Your task to perform on an android device: Go to Yahoo.com Image 0: 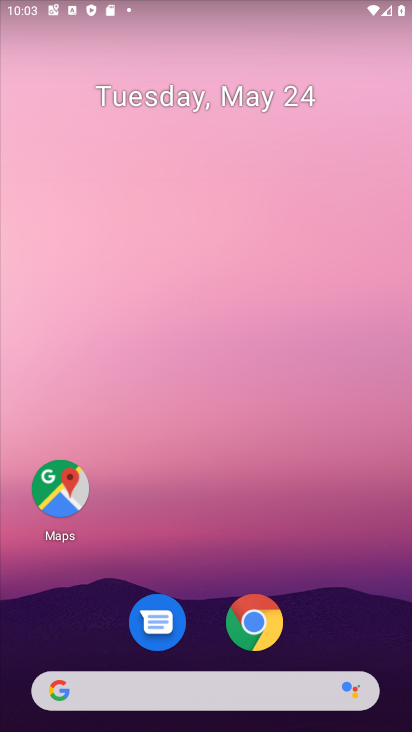
Step 0: press home button
Your task to perform on an android device: Go to Yahoo.com Image 1: 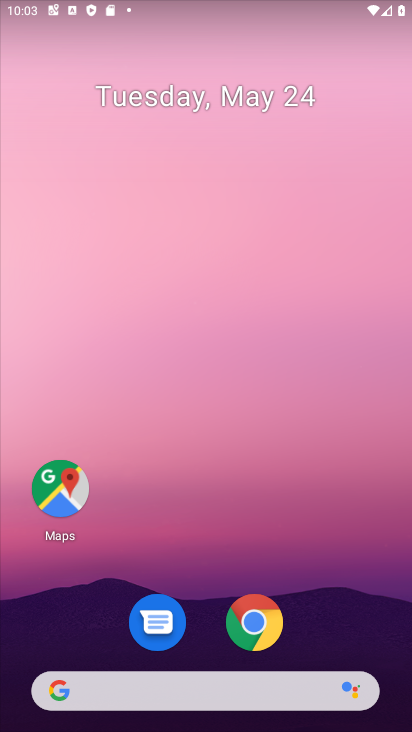
Step 1: drag from (304, 717) to (273, 124)
Your task to perform on an android device: Go to Yahoo.com Image 2: 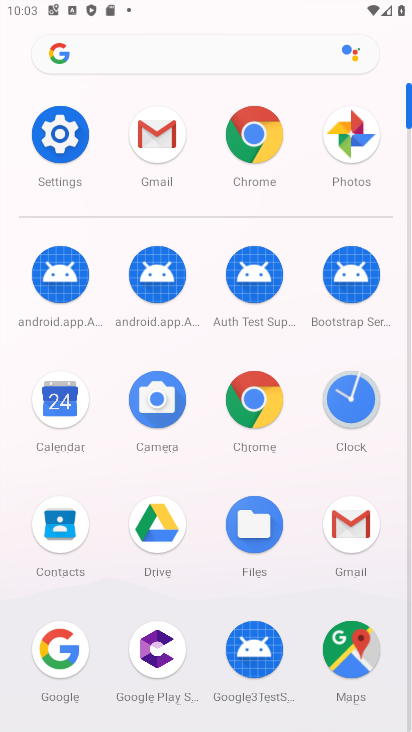
Step 2: click (242, 149)
Your task to perform on an android device: Go to Yahoo.com Image 3: 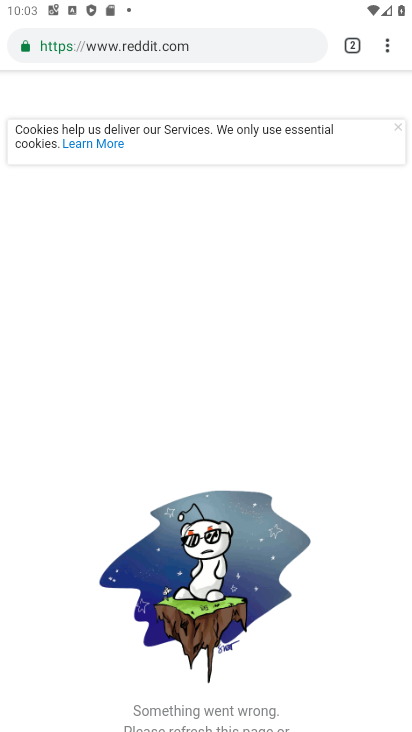
Step 3: click (356, 40)
Your task to perform on an android device: Go to Yahoo.com Image 4: 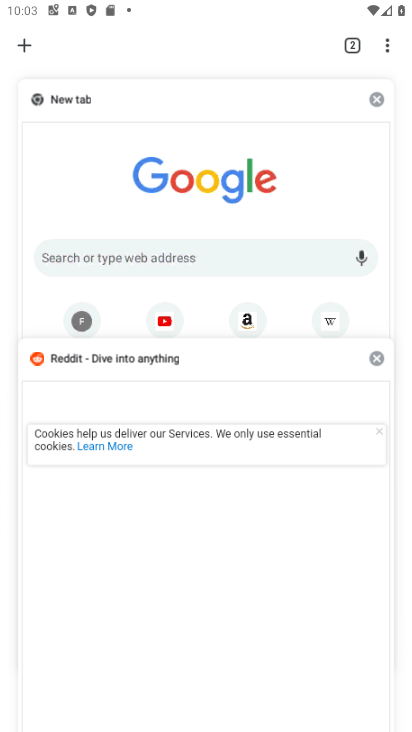
Step 4: click (20, 44)
Your task to perform on an android device: Go to Yahoo.com Image 5: 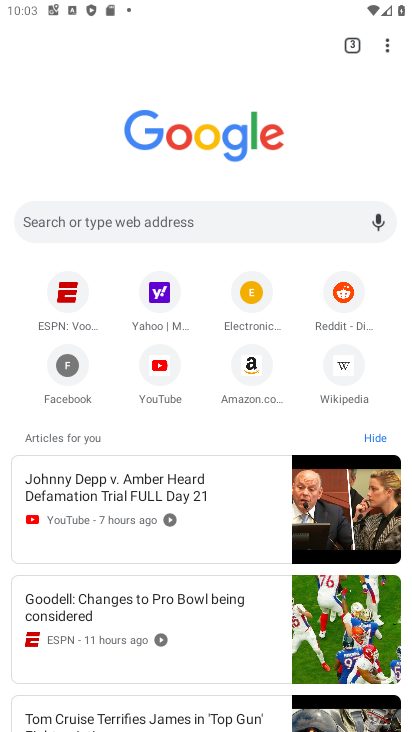
Step 5: click (160, 304)
Your task to perform on an android device: Go to Yahoo.com Image 6: 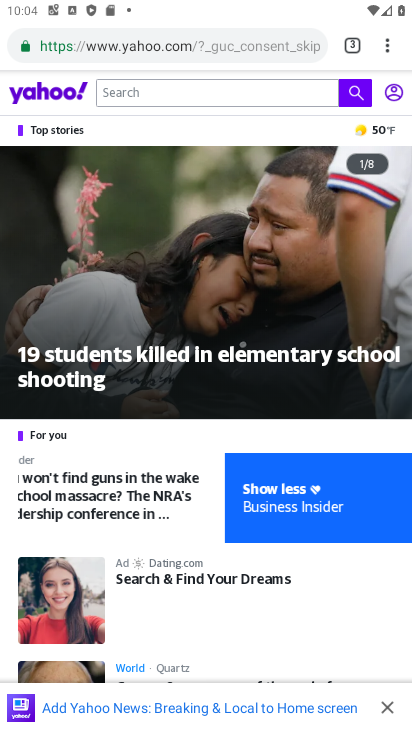
Step 6: task complete